Your task to perform on an android device: open wifi settings Image 0: 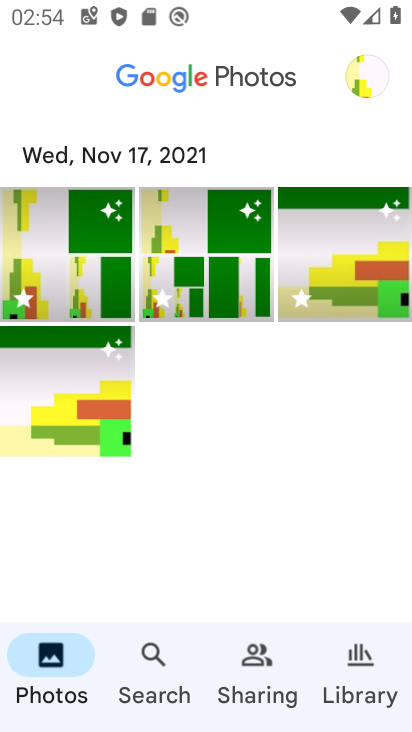
Step 0: press home button
Your task to perform on an android device: open wifi settings Image 1: 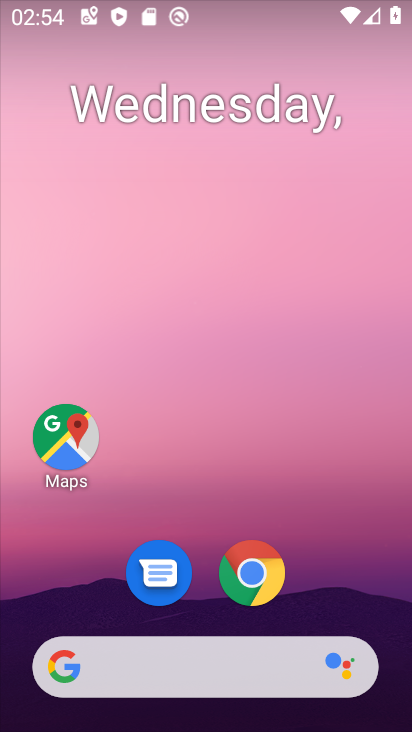
Step 1: drag from (365, 539) to (296, 5)
Your task to perform on an android device: open wifi settings Image 2: 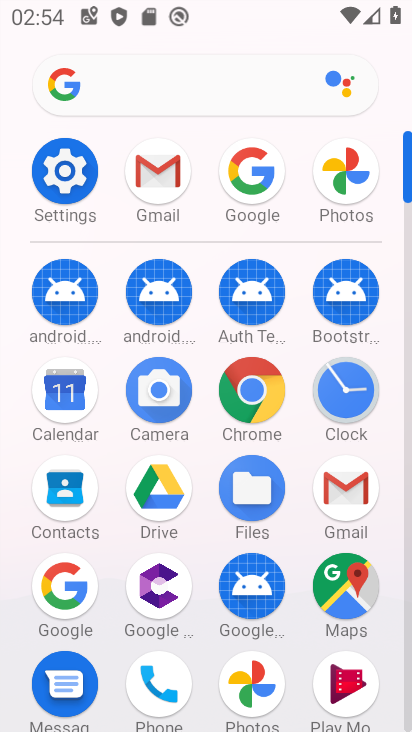
Step 2: click (62, 167)
Your task to perform on an android device: open wifi settings Image 3: 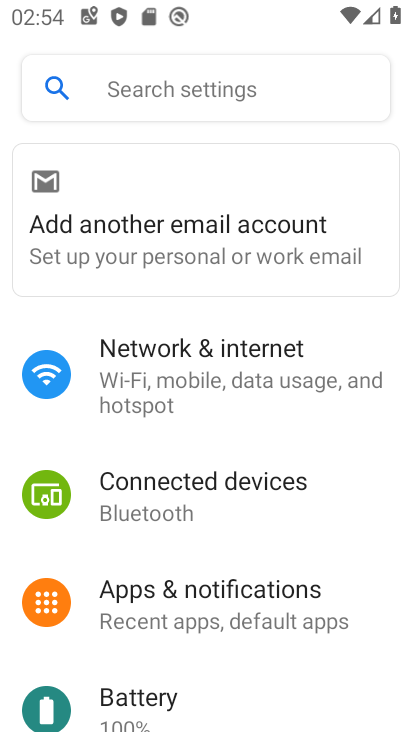
Step 3: click (186, 348)
Your task to perform on an android device: open wifi settings Image 4: 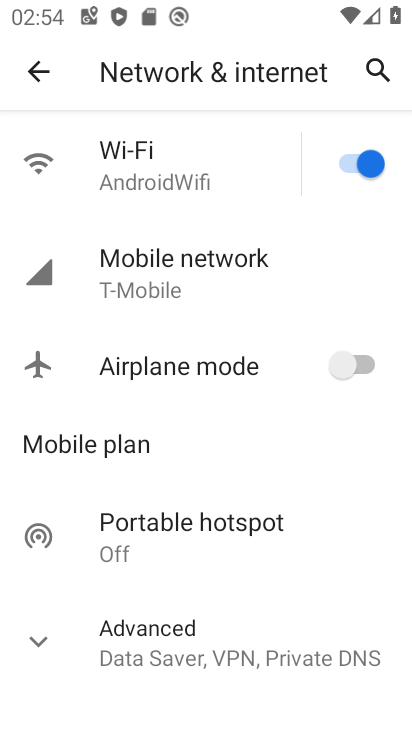
Step 4: click (143, 173)
Your task to perform on an android device: open wifi settings Image 5: 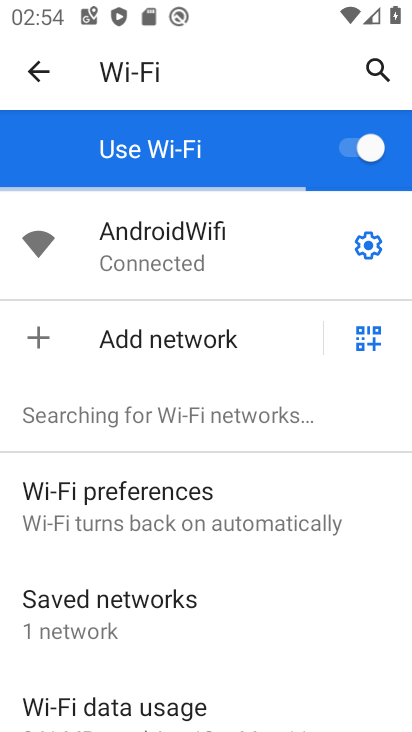
Step 5: click (366, 246)
Your task to perform on an android device: open wifi settings Image 6: 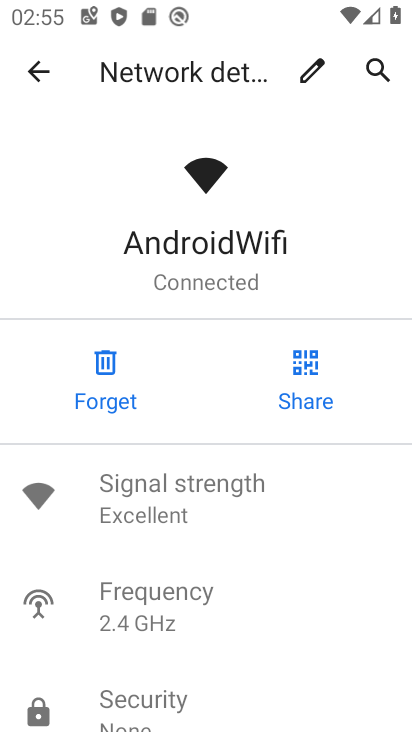
Step 6: task complete